Your task to perform on an android device: Go to display settings Image 0: 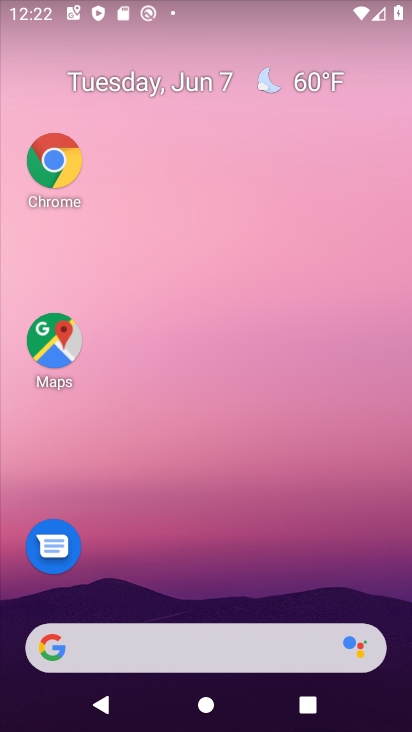
Step 0: drag from (193, 523) to (318, 168)
Your task to perform on an android device: Go to display settings Image 1: 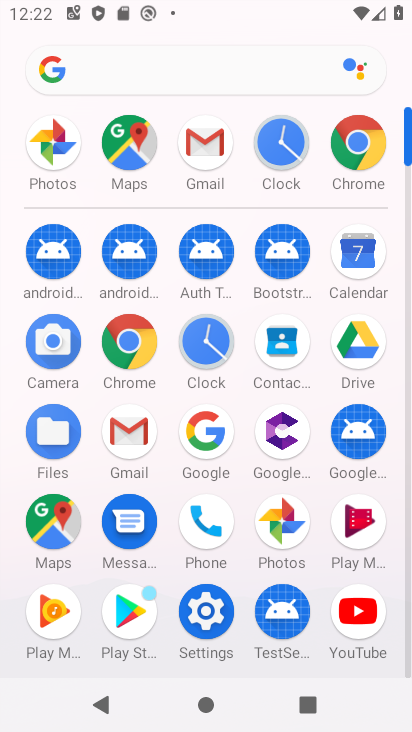
Step 1: click (209, 603)
Your task to perform on an android device: Go to display settings Image 2: 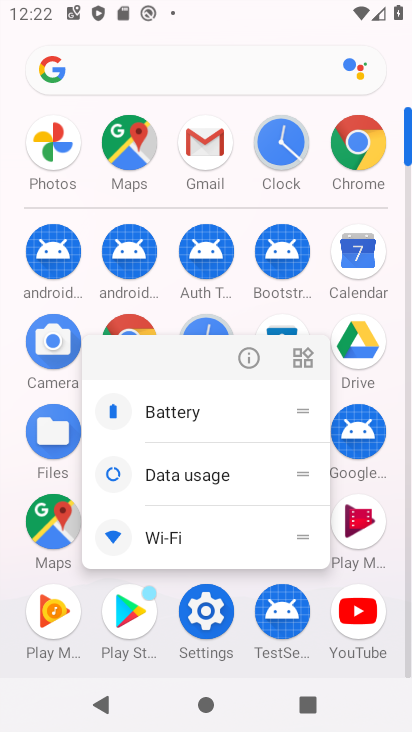
Step 2: click (255, 353)
Your task to perform on an android device: Go to display settings Image 3: 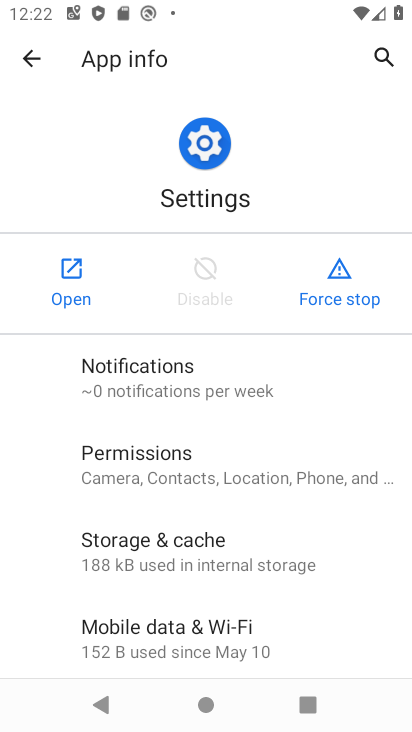
Step 3: click (69, 278)
Your task to perform on an android device: Go to display settings Image 4: 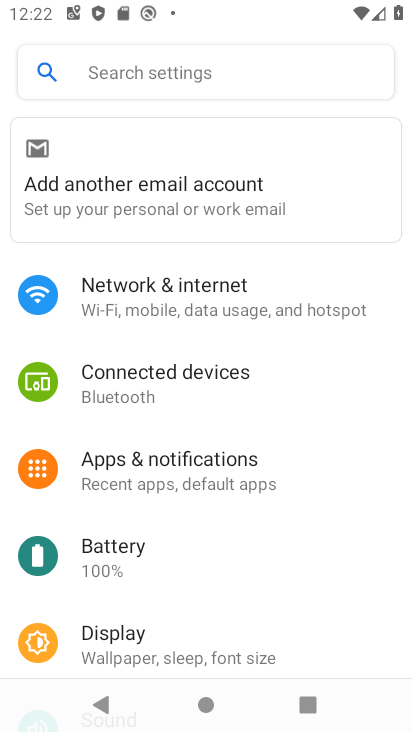
Step 4: drag from (168, 644) to (183, 596)
Your task to perform on an android device: Go to display settings Image 5: 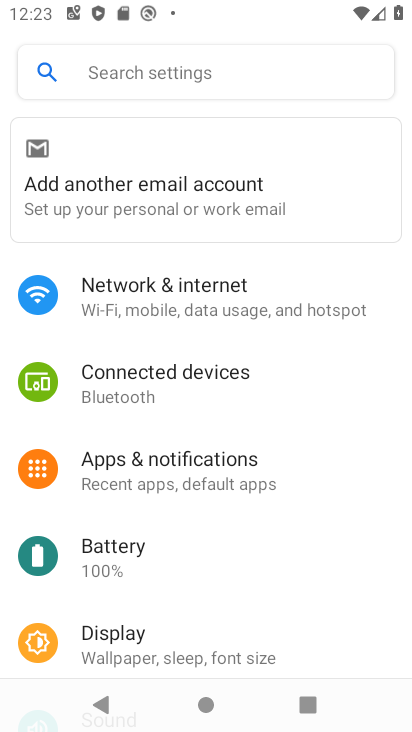
Step 5: drag from (212, 590) to (410, 140)
Your task to perform on an android device: Go to display settings Image 6: 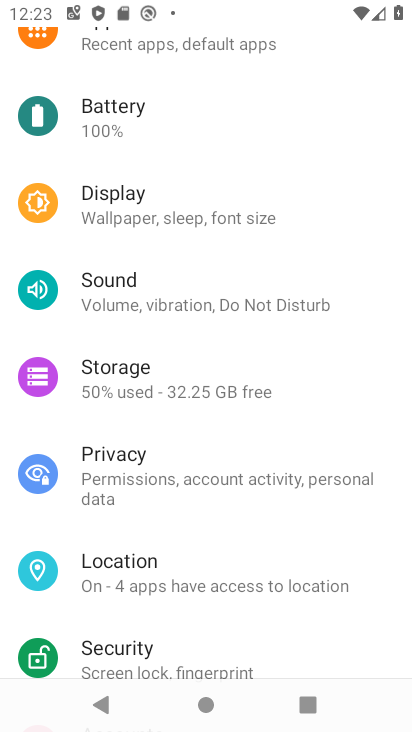
Step 6: click (134, 223)
Your task to perform on an android device: Go to display settings Image 7: 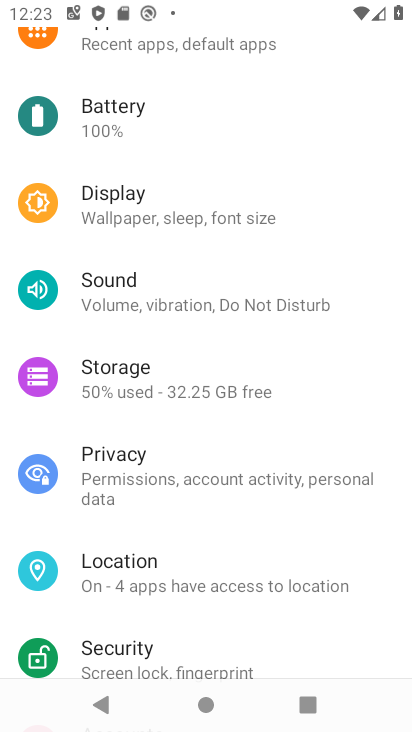
Step 7: click (135, 223)
Your task to perform on an android device: Go to display settings Image 8: 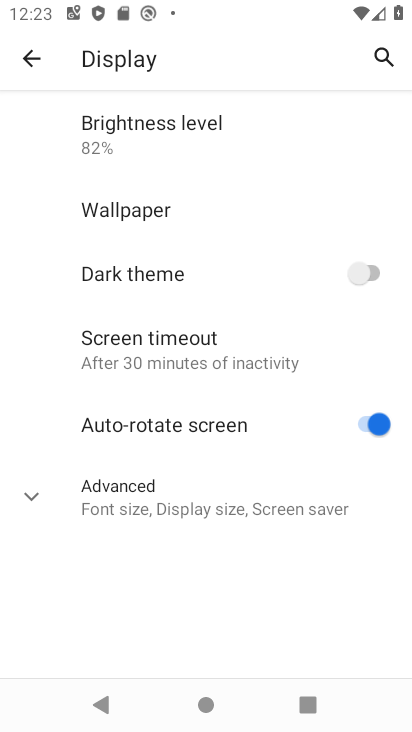
Step 8: task complete